Your task to perform on an android device: clear all cookies in the chrome app Image 0: 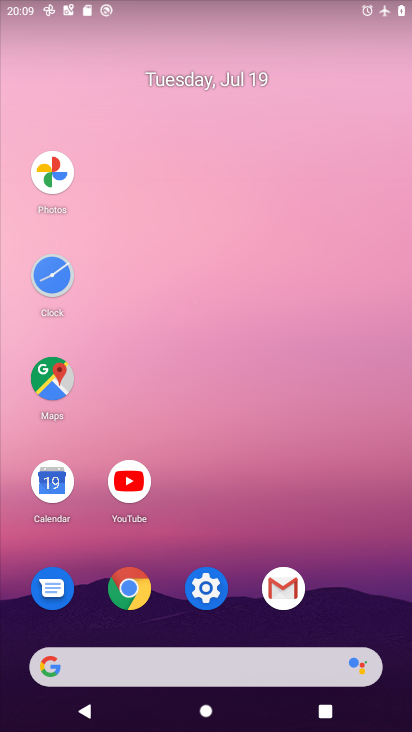
Step 0: click (126, 596)
Your task to perform on an android device: clear all cookies in the chrome app Image 1: 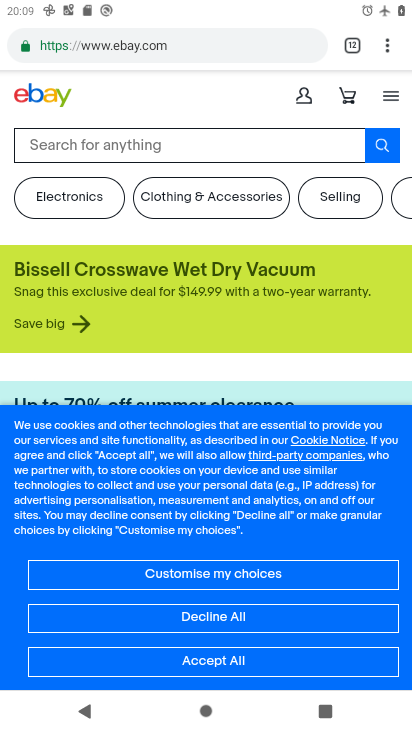
Step 1: click (390, 41)
Your task to perform on an android device: clear all cookies in the chrome app Image 2: 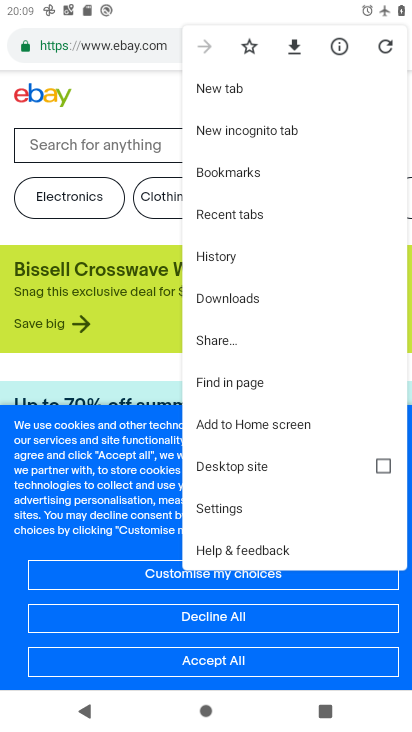
Step 2: click (229, 500)
Your task to perform on an android device: clear all cookies in the chrome app Image 3: 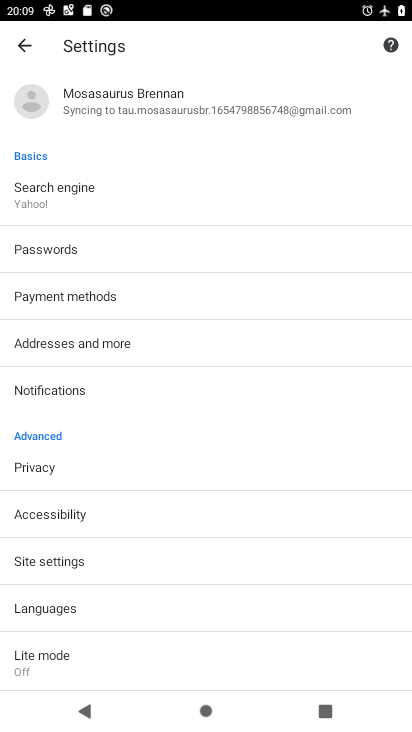
Step 3: click (37, 466)
Your task to perform on an android device: clear all cookies in the chrome app Image 4: 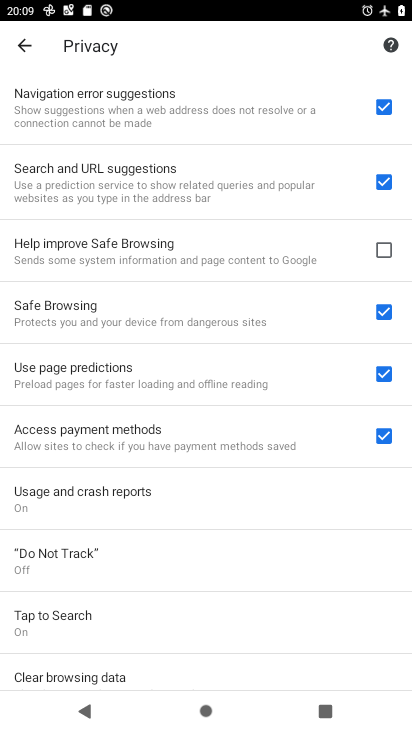
Step 4: click (104, 669)
Your task to perform on an android device: clear all cookies in the chrome app Image 5: 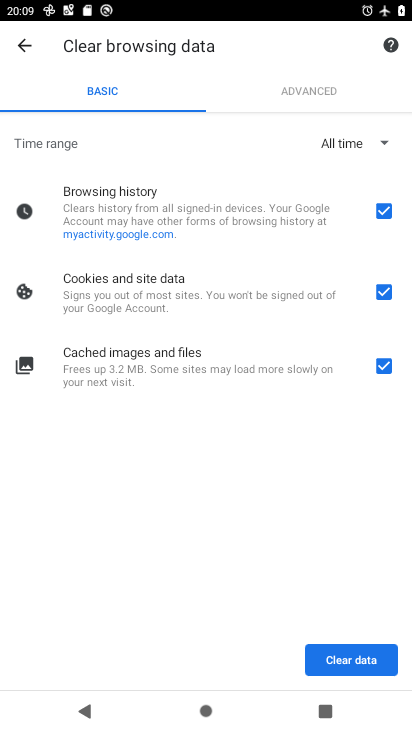
Step 5: click (391, 206)
Your task to perform on an android device: clear all cookies in the chrome app Image 6: 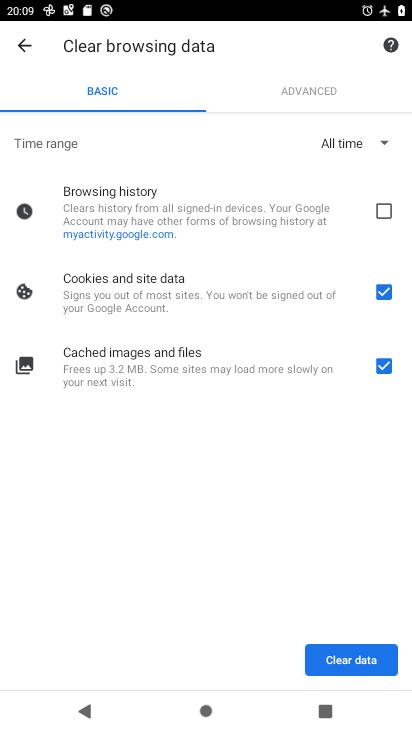
Step 6: click (389, 363)
Your task to perform on an android device: clear all cookies in the chrome app Image 7: 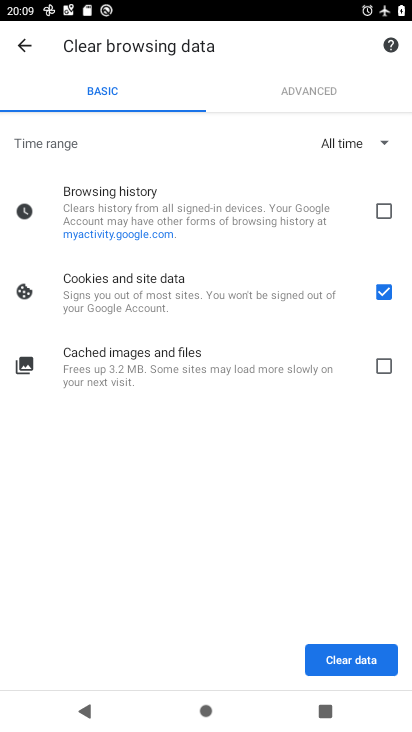
Step 7: click (351, 656)
Your task to perform on an android device: clear all cookies in the chrome app Image 8: 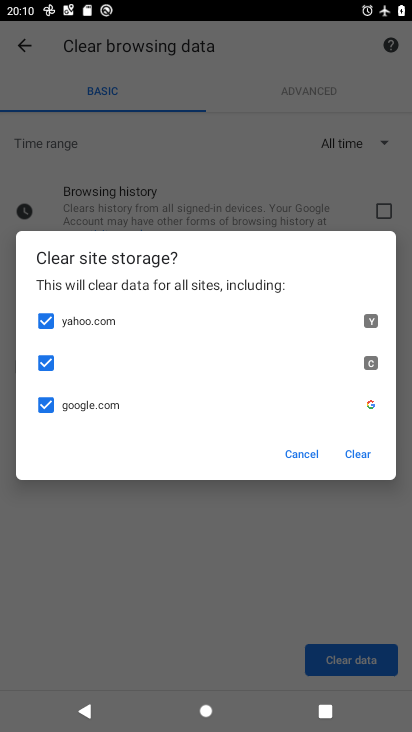
Step 8: click (356, 450)
Your task to perform on an android device: clear all cookies in the chrome app Image 9: 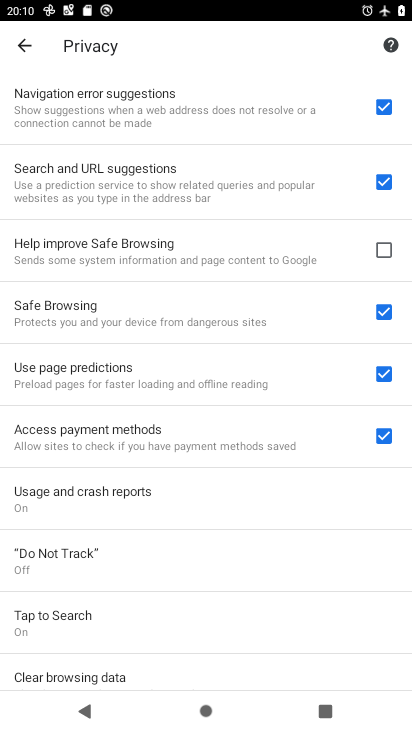
Step 9: task complete